Your task to perform on an android device: open chrome privacy settings Image 0: 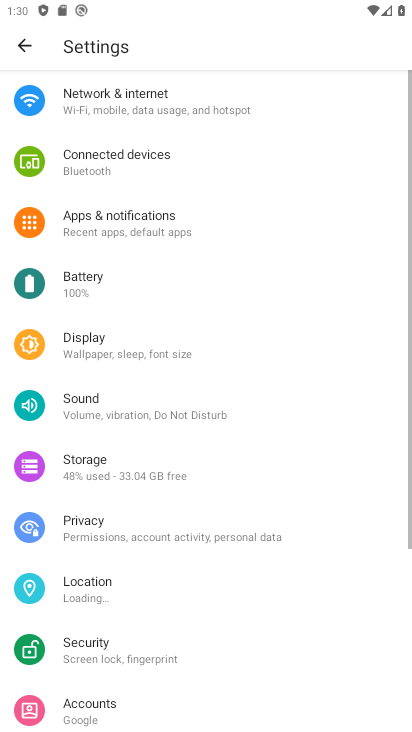
Step 0: press back button
Your task to perform on an android device: open chrome privacy settings Image 1: 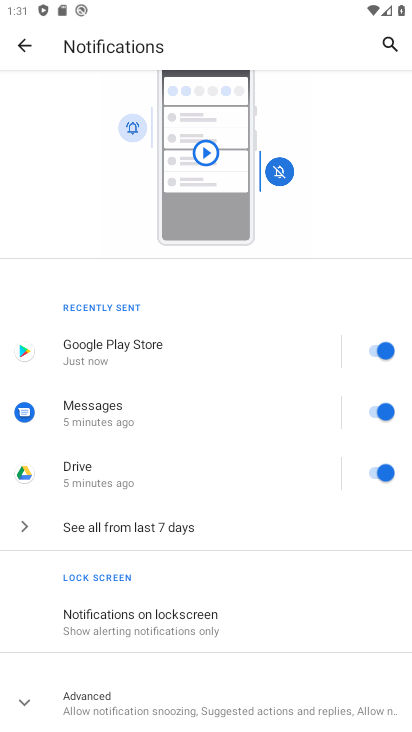
Step 1: press back button
Your task to perform on an android device: open chrome privacy settings Image 2: 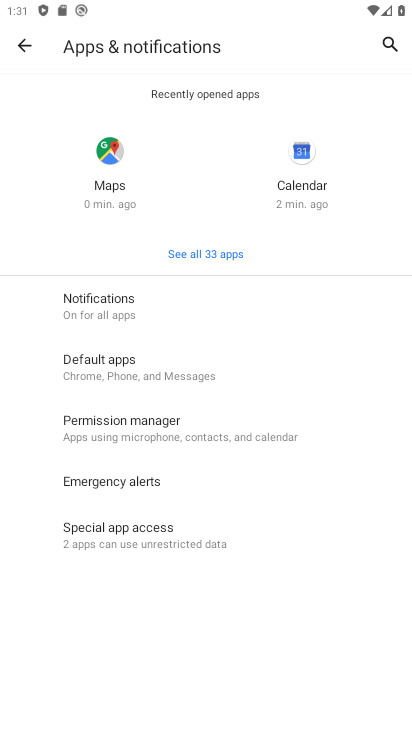
Step 2: press back button
Your task to perform on an android device: open chrome privacy settings Image 3: 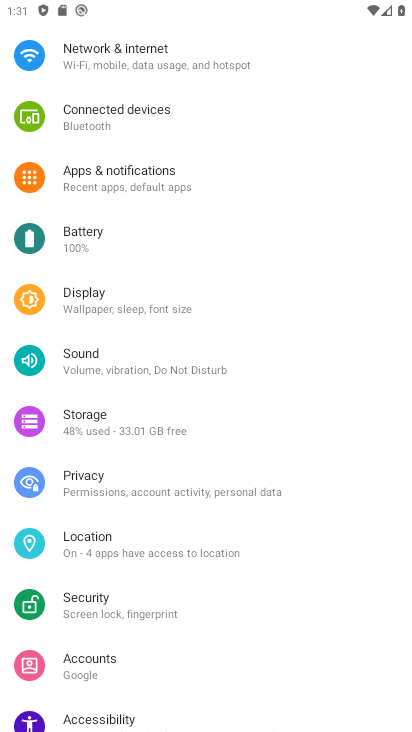
Step 3: press back button
Your task to perform on an android device: open chrome privacy settings Image 4: 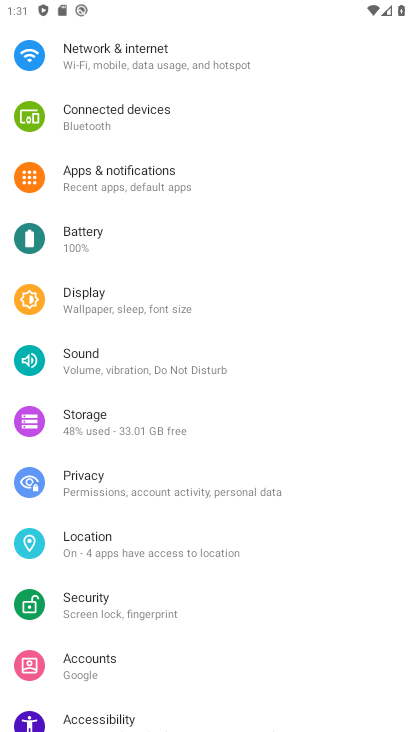
Step 4: press back button
Your task to perform on an android device: open chrome privacy settings Image 5: 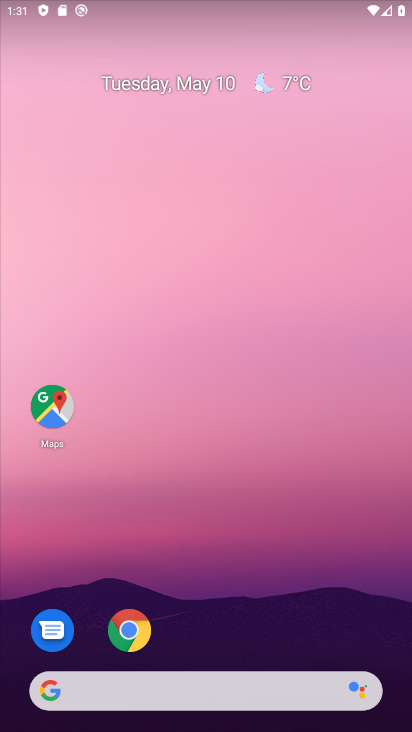
Step 5: drag from (244, 614) to (228, 14)
Your task to perform on an android device: open chrome privacy settings Image 6: 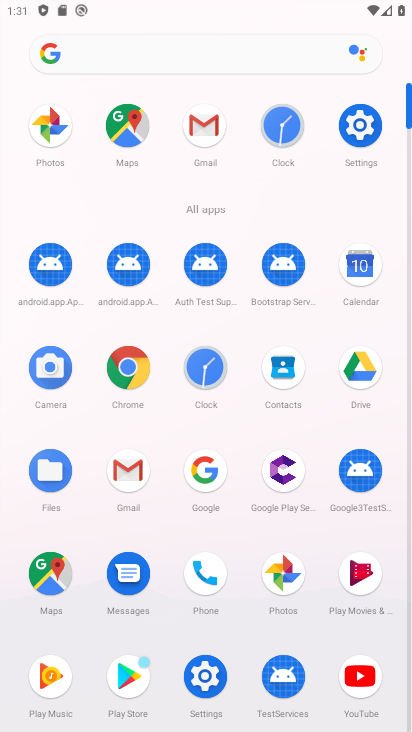
Step 6: click (124, 365)
Your task to perform on an android device: open chrome privacy settings Image 7: 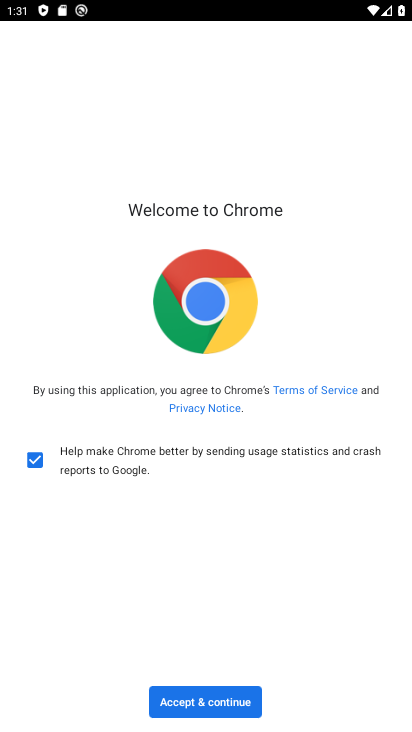
Step 7: click (193, 699)
Your task to perform on an android device: open chrome privacy settings Image 8: 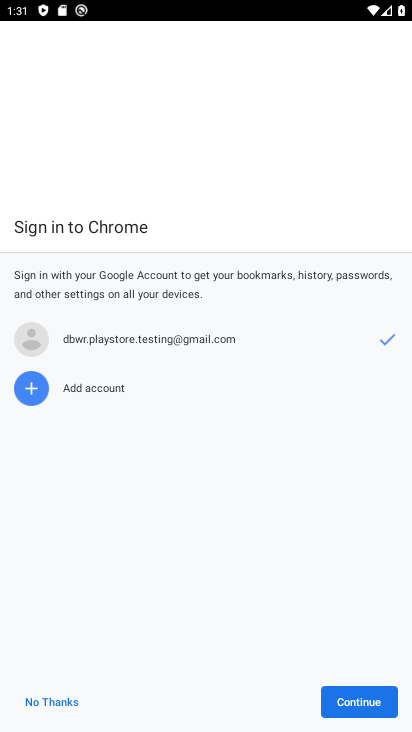
Step 8: click (345, 701)
Your task to perform on an android device: open chrome privacy settings Image 9: 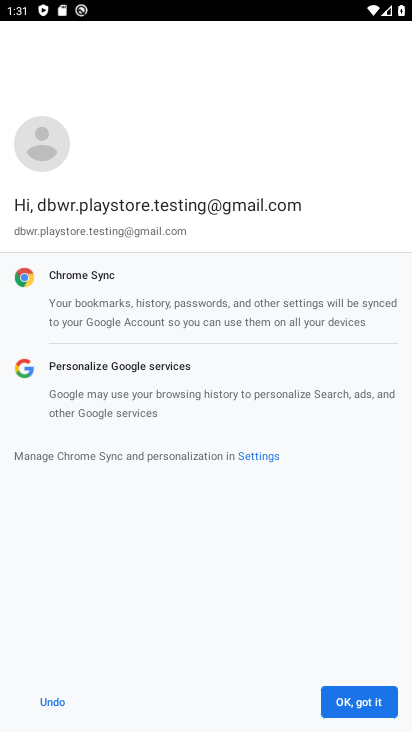
Step 9: click (345, 700)
Your task to perform on an android device: open chrome privacy settings Image 10: 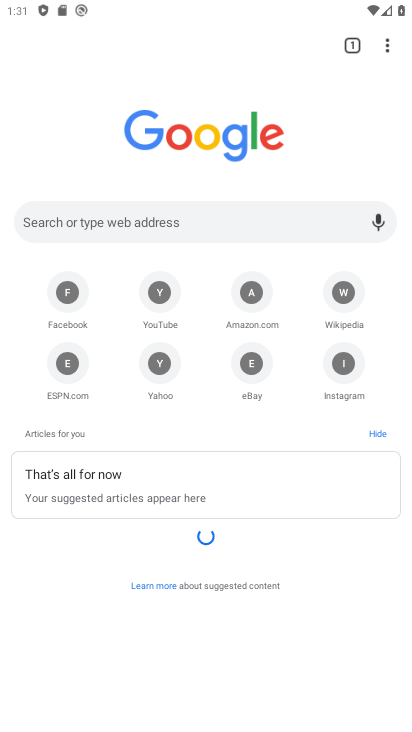
Step 10: drag from (384, 45) to (226, 382)
Your task to perform on an android device: open chrome privacy settings Image 11: 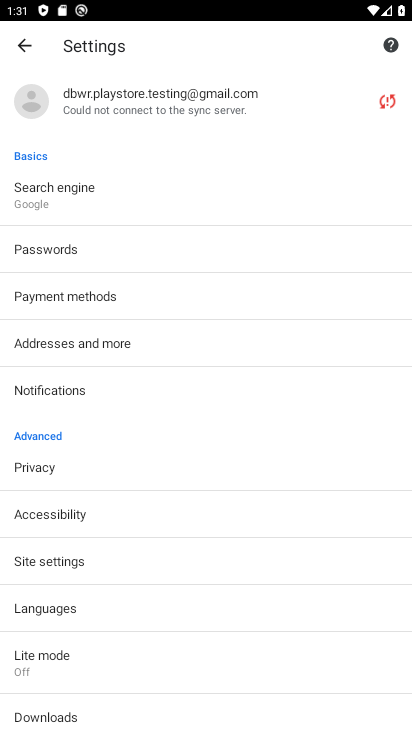
Step 11: click (62, 469)
Your task to perform on an android device: open chrome privacy settings Image 12: 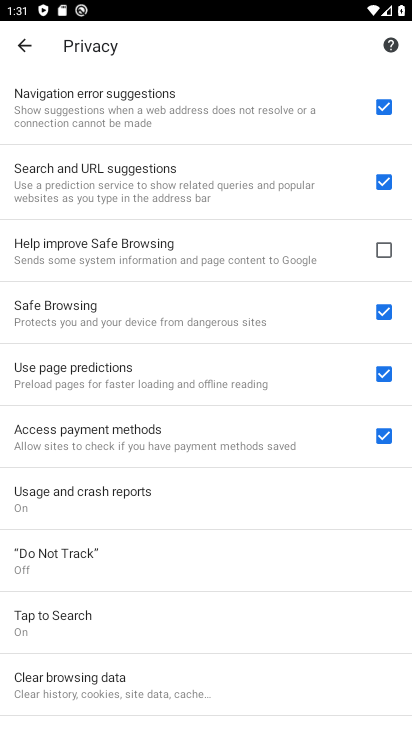
Step 12: task complete